Your task to perform on an android device: Open Google Image 0: 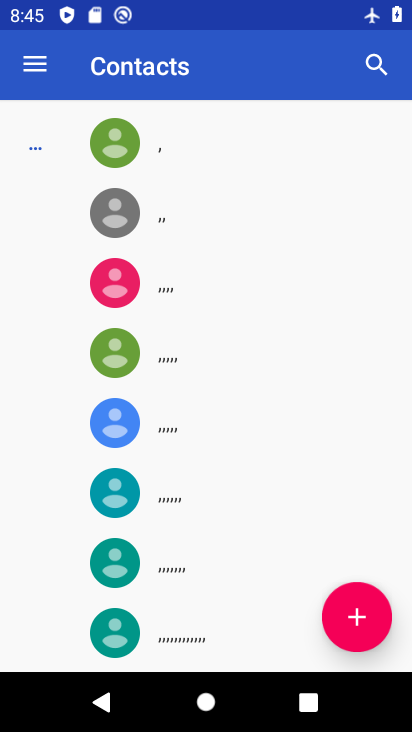
Step 0: press home button
Your task to perform on an android device: Open Google Image 1: 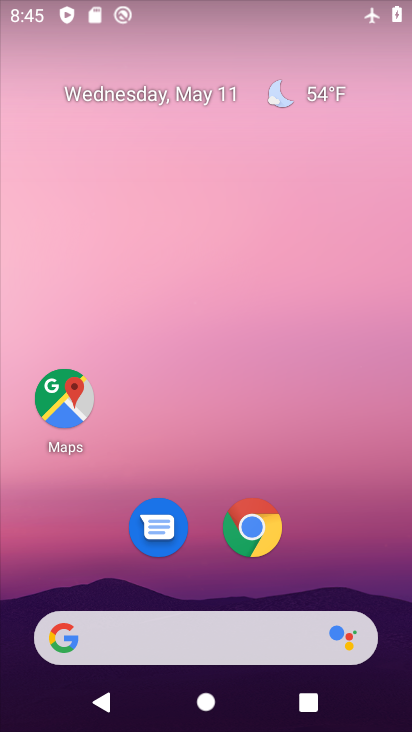
Step 1: drag from (299, 482) to (286, 237)
Your task to perform on an android device: Open Google Image 2: 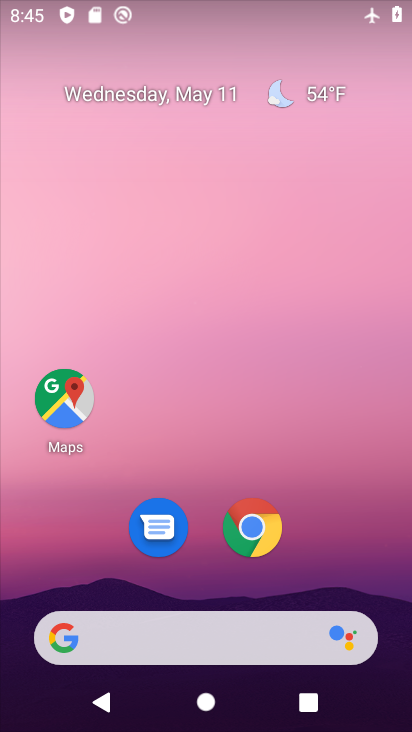
Step 2: drag from (318, 455) to (318, 101)
Your task to perform on an android device: Open Google Image 3: 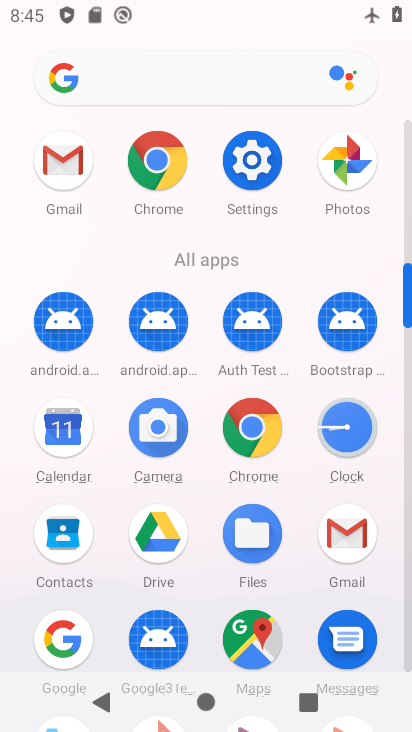
Step 3: click (75, 634)
Your task to perform on an android device: Open Google Image 4: 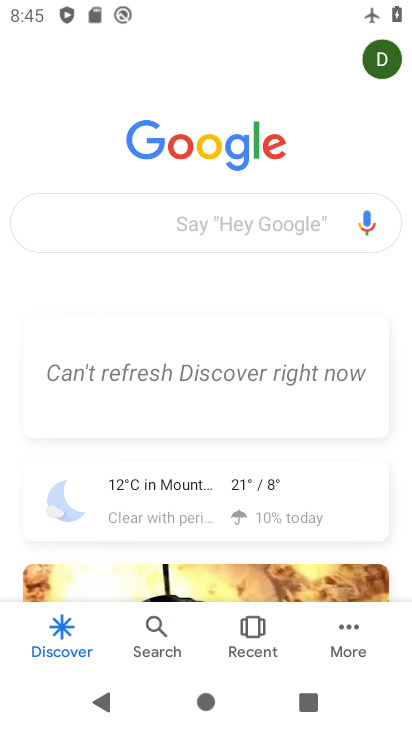
Step 4: task complete